Your task to perform on an android device: Set the phone to "Do not disturb". Image 0: 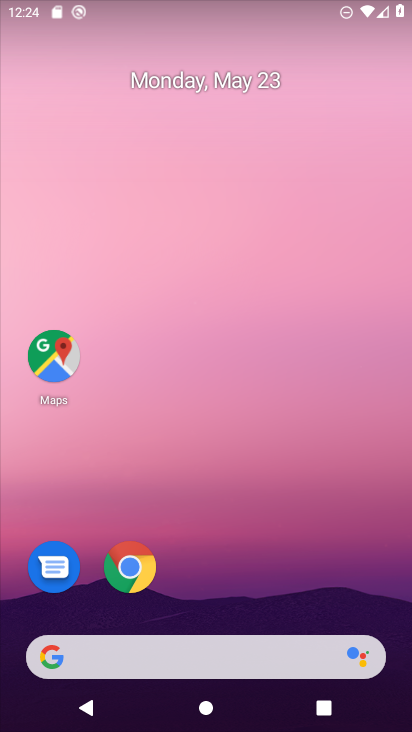
Step 0: drag from (145, 4) to (108, 673)
Your task to perform on an android device: Set the phone to "Do not disturb". Image 1: 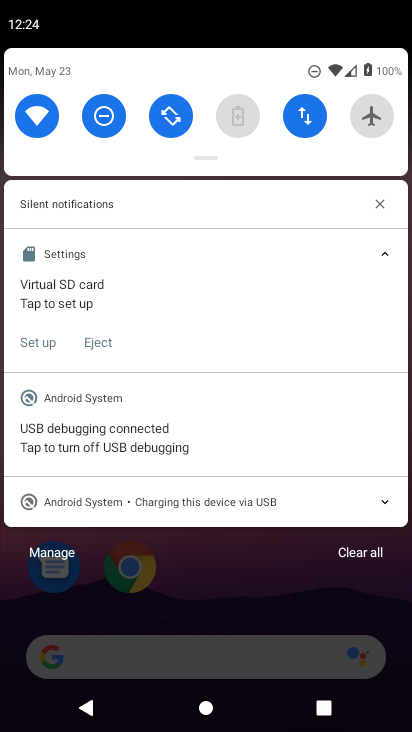
Step 1: task complete